Your task to perform on an android device: open chrome and create a bookmark for the current page Image 0: 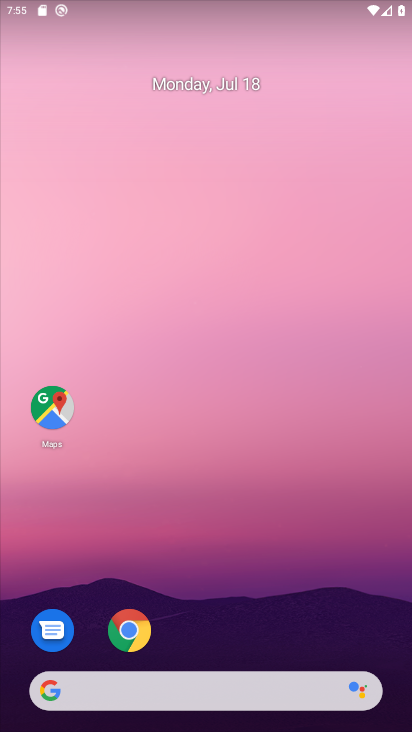
Step 0: drag from (212, 589) to (230, 335)
Your task to perform on an android device: open chrome and create a bookmark for the current page Image 1: 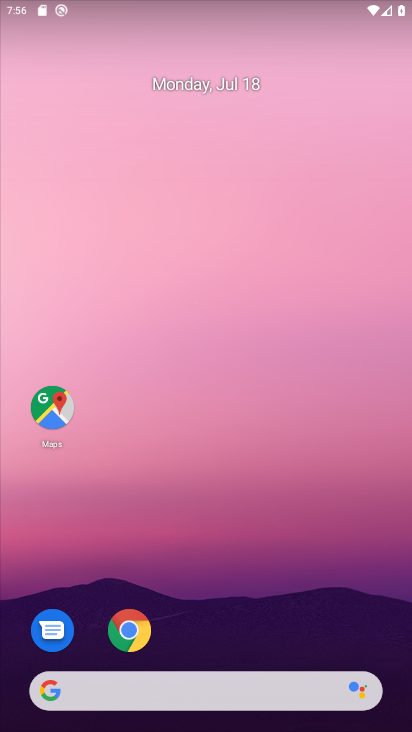
Step 1: click (122, 651)
Your task to perform on an android device: open chrome and create a bookmark for the current page Image 2: 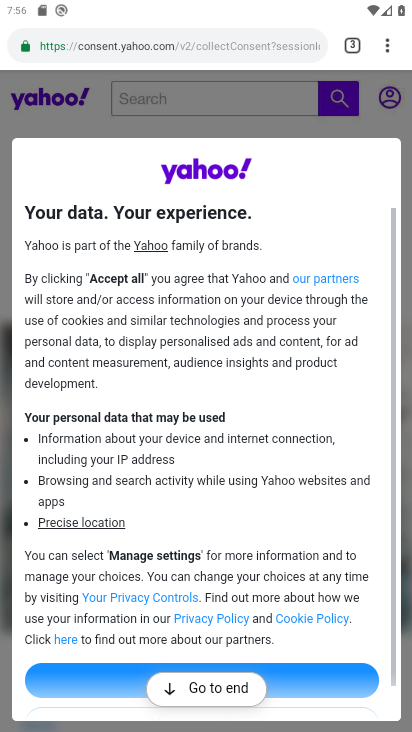
Step 2: click (376, 48)
Your task to perform on an android device: open chrome and create a bookmark for the current page Image 3: 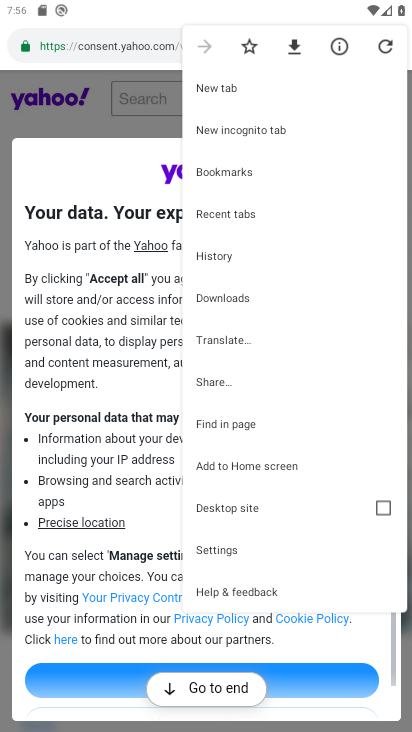
Step 3: click (242, 46)
Your task to perform on an android device: open chrome and create a bookmark for the current page Image 4: 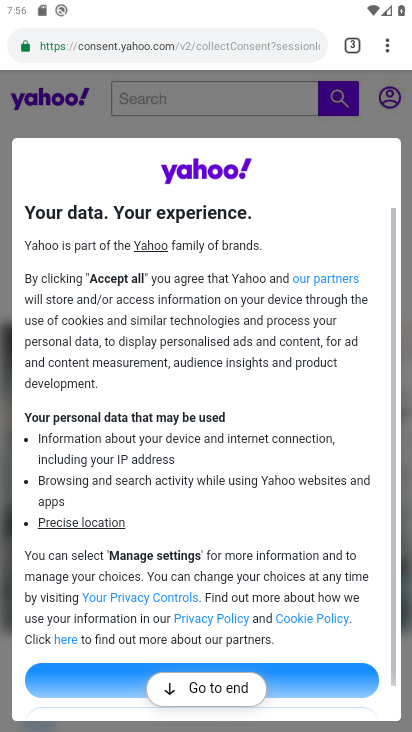
Step 4: task complete